Your task to perform on an android device: Search for vegetarian restaurants on Maps Image 0: 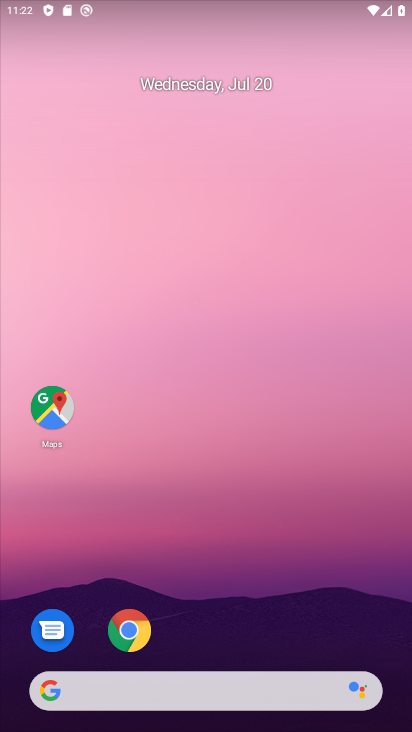
Step 0: click (48, 402)
Your task to perform on an android device: Search for vegetarian restaurants on Maps Image 1: 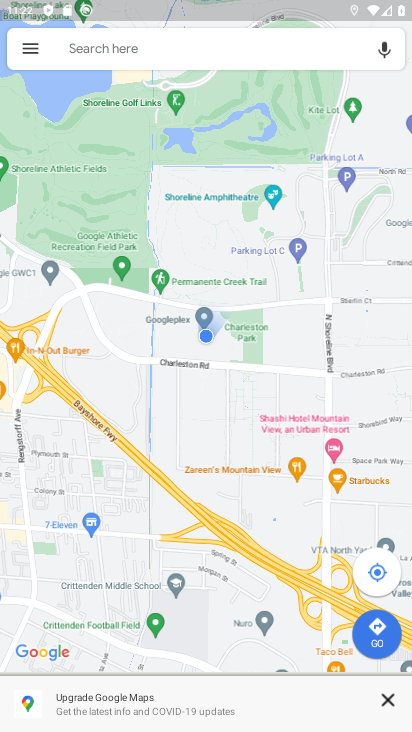
Step 1: click (92, 46)
Your task to perform on an android device: Search for vegetarian restaurants on Maps Image 2: 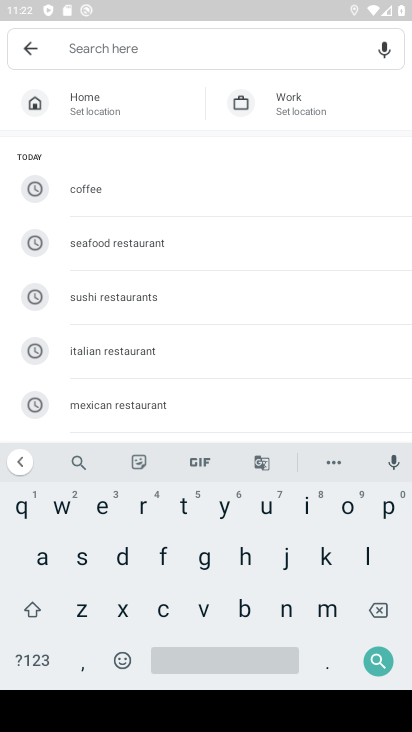
Step 2: click (207, 611)
Your task to perform on an android device: Search for vegetarian restaurants on Maps Image 3: 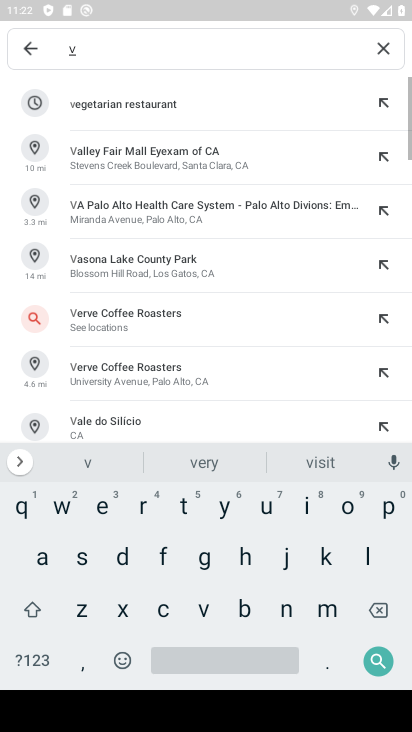
Step 3: click (159, 102)
Your task to perform on an android device: Search for vegetarian restaurants on Maps Image 4: 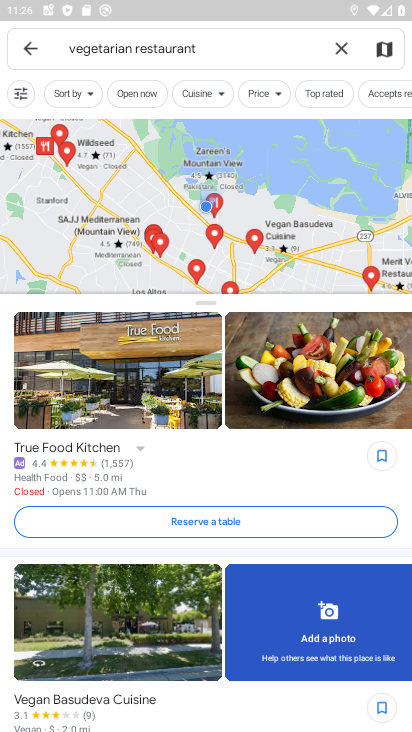
Step 4: task complete